Your task to perform on an android device: Open calendar and show me the first week of next month Image 0: 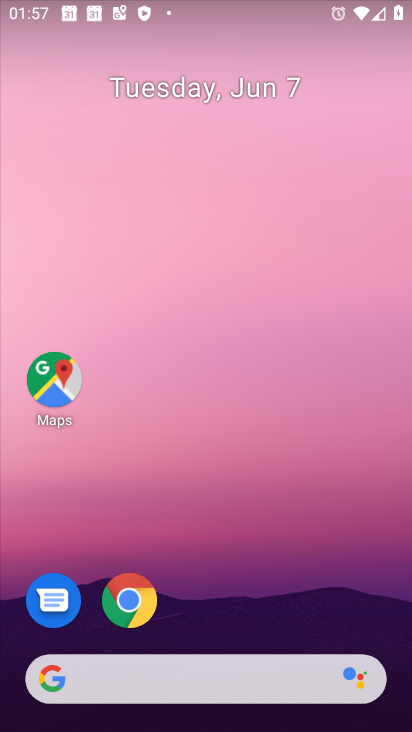
Step 0: drag from (238, 713) to (198, 70)
Your task to perform on an android device: Open calendar and show me the first week of next month Image 1: 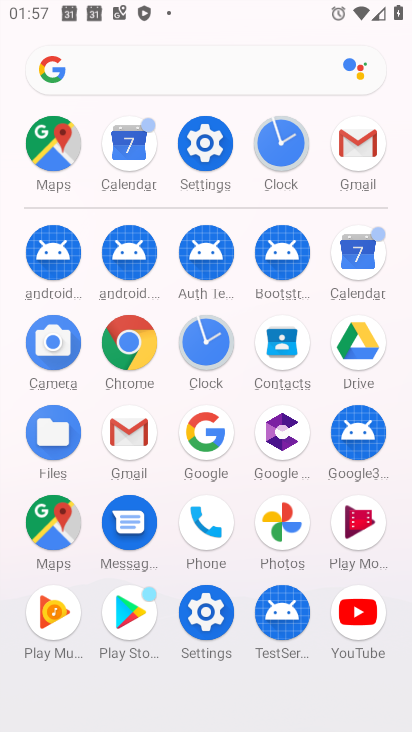
Step 1: click (354, 258)
Your task to perform on an android device: Open calendar and show me the first week of next month Image 2: 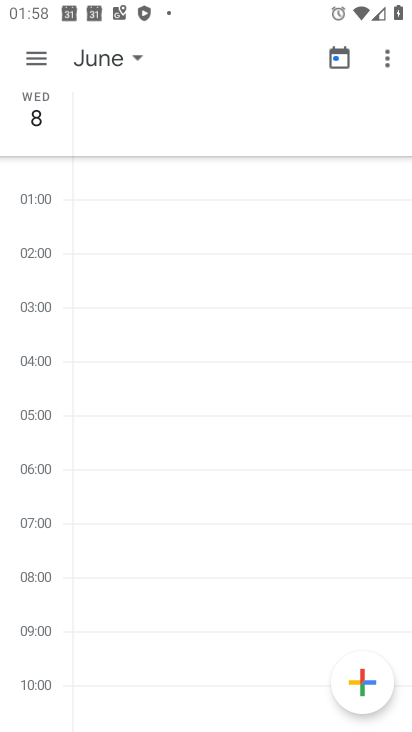
Step 2: click (126, 56)
Your task to perform on an android device: Open calendar and show me the first week of next month Image 3: 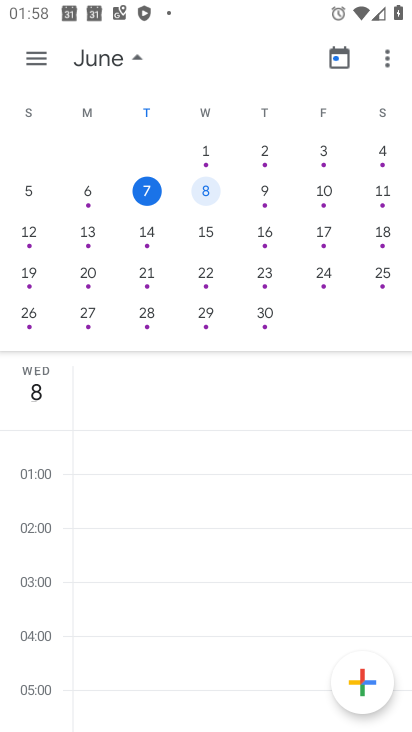
Step 3: drag from (303, 229) to (111, 215)
Your task to perform on an android device: Open calendar and show me the first week of next month Image 4: 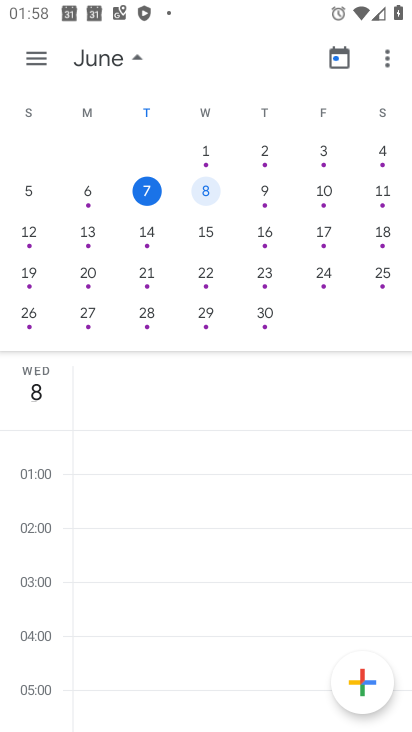
Step 4: drag from (352, 221) to (86, 237)
Your task to perform on an android device: Open calendar and show me the first week of next month Image 5: 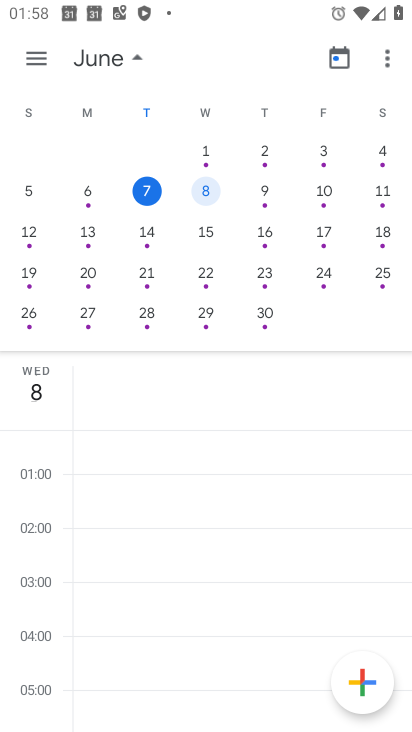
Step 5: drag from (389, 209) to (2, 212)
Your task to perform on an android device: Open calendar and show me the first week of next month Image 6: 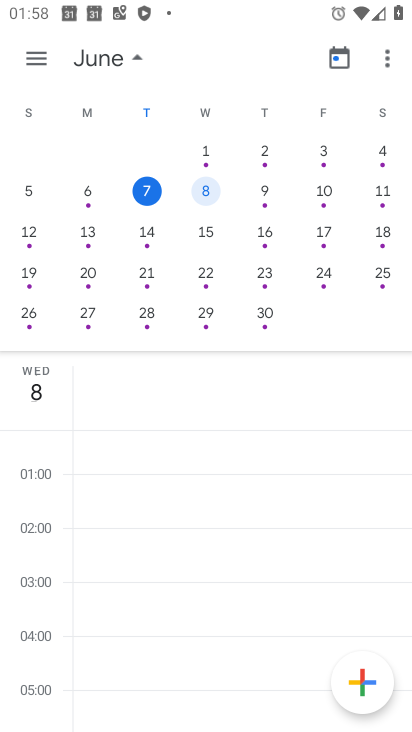
Step 6: drag from (321, 190) to (70, 183)
Your task to perform on an android device: Open calendar and show me the first week of next month Image 7: 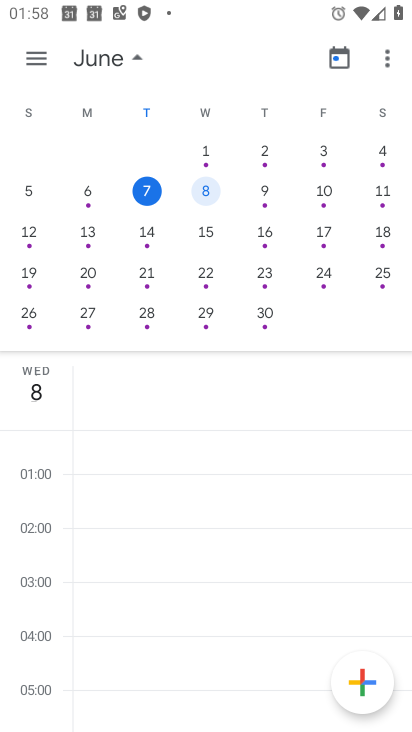
Step 7: drag from (372, 189) to (16, 192)
Your task to perform on an android device: Open calendar and show me the first week of next month Image 8: 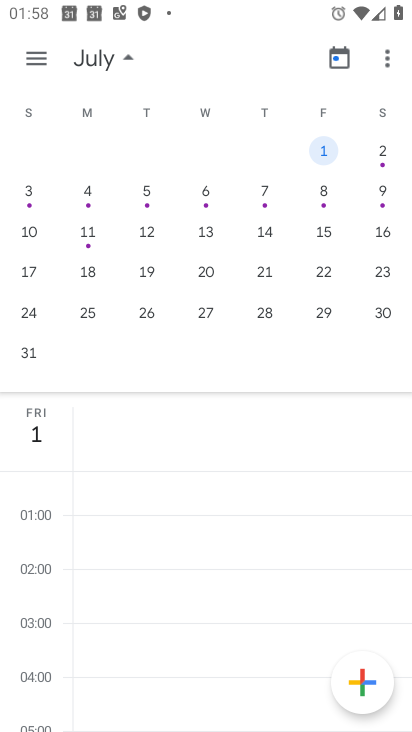
Step 8: click (89, 190)
Your task to perform on an android device: Open calendar and show me the first week of next month Image 9: 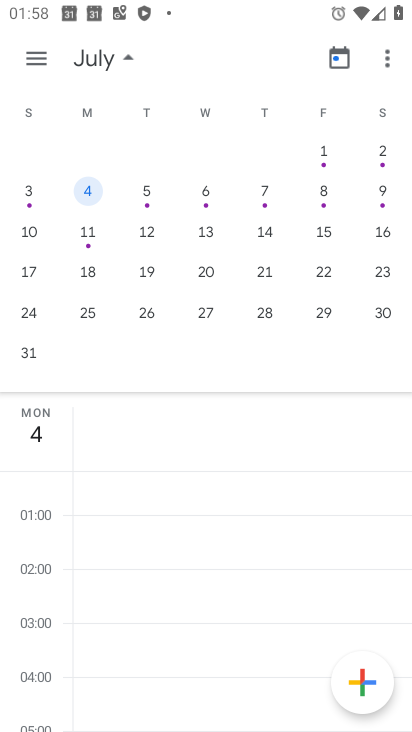
Step 9: click (88, 192)
Your task to perform on an android device: Open calendar and show me the first week of next month Image 10: 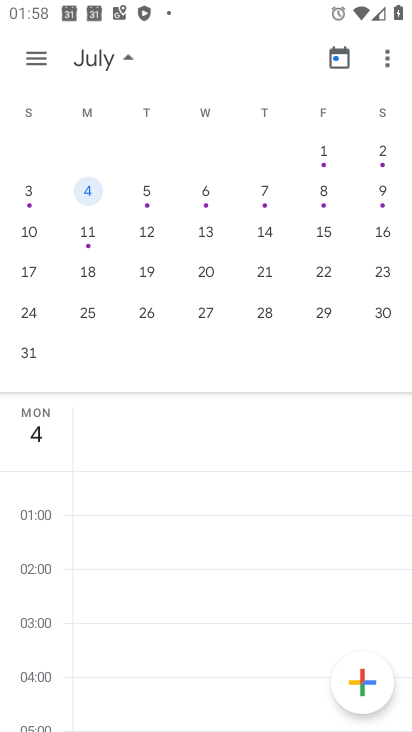
Step 10: click (30, 55)
Your task to perform on an android device: Open calendar and show me the first week of next month Image 11: 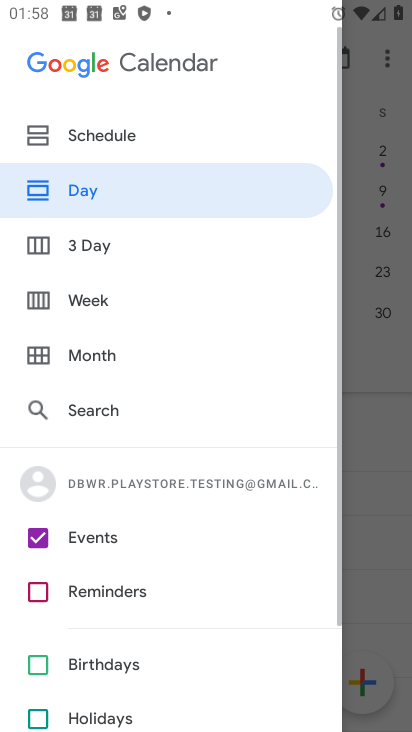
Step 11: click (97, 297)
Your task to perform on an android device: Open calendar and show me the first week of next month Image 12: 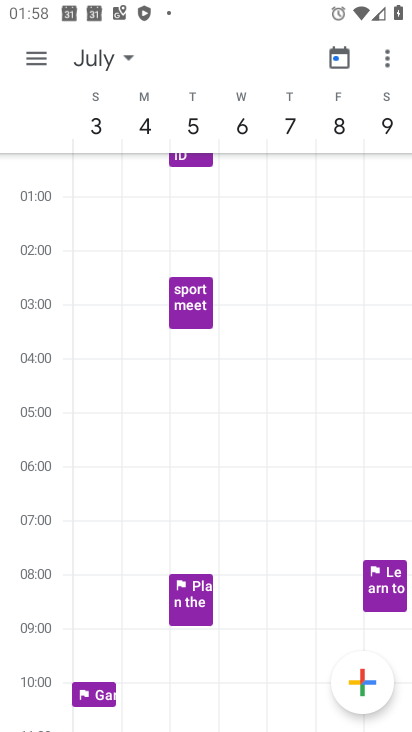
Step 12: task complete